Your task to perform on an android device: open app "Move to iOS" Image 0: 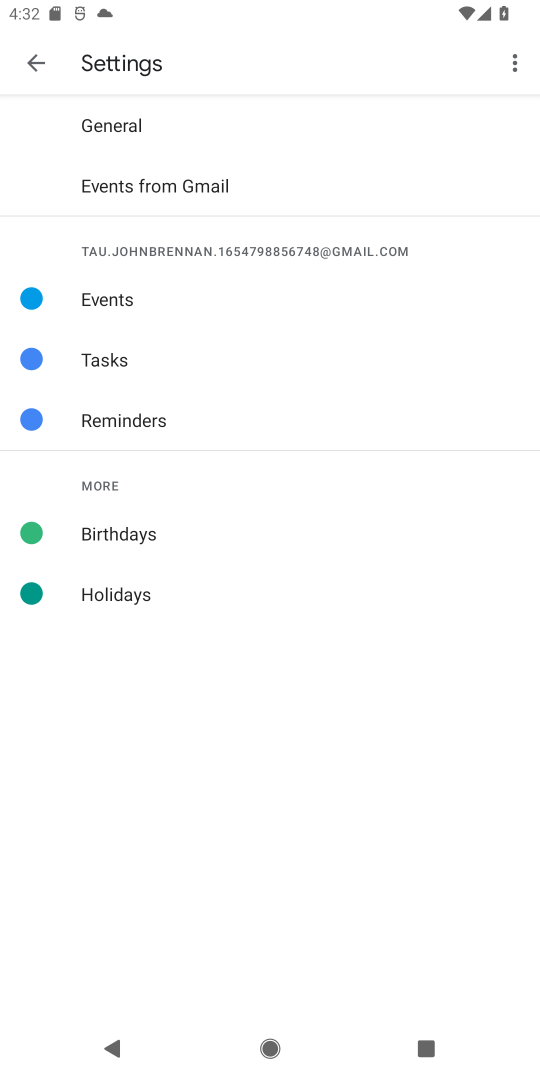
Step 0: press home button
Your task to perform on an android device: open app "Move to iOS" Image 1: 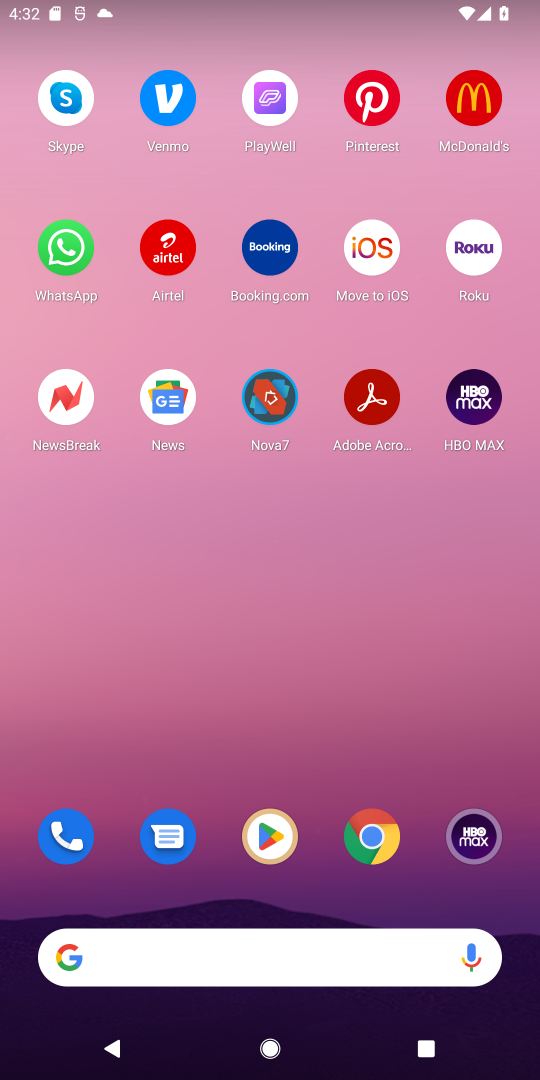
Step 1: click (272, 834)
Your task to perform on an android device: open app "Move to iOS" Image 2: 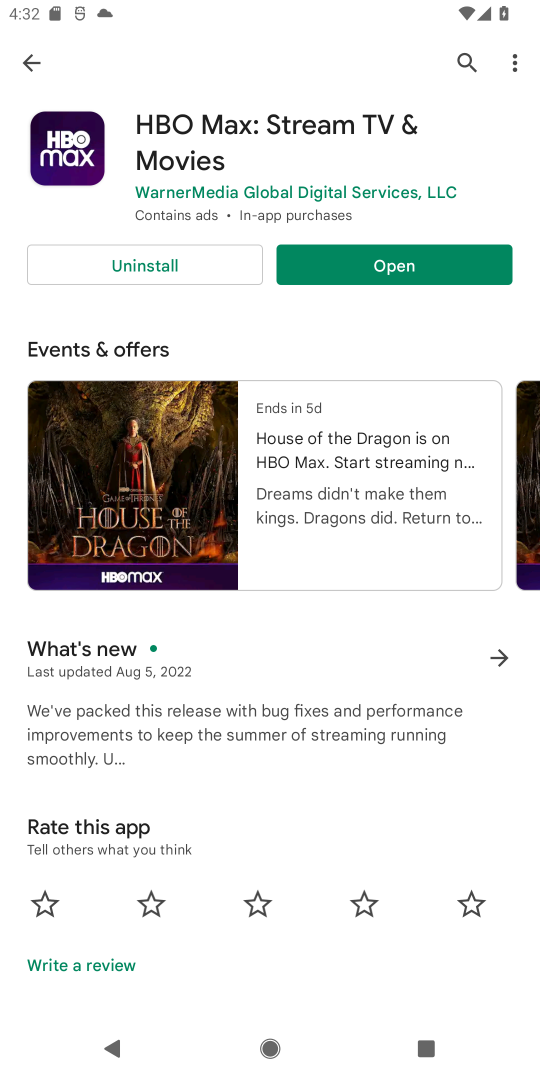
Step 2: click (467, 62)
Your task to perform on an android device: open app "Move to iOS" Image 3: 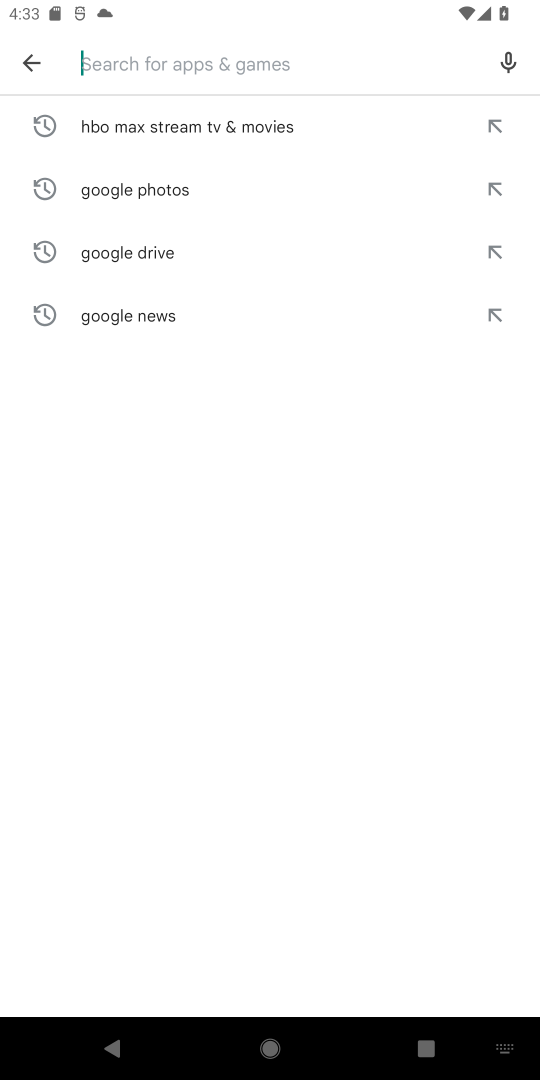
Step 3: type """
Your task to perform on an android device: open app "Move to iOS" Image 4: 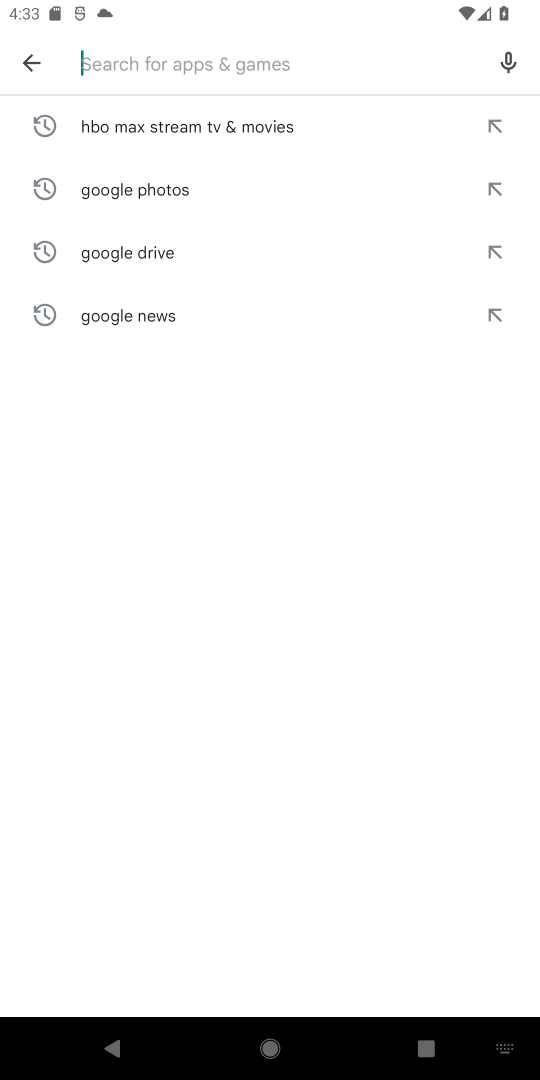
Step 4: type "Move to iOS"
Your task to perform on an android device: open app "Move to iOS" Image 5: 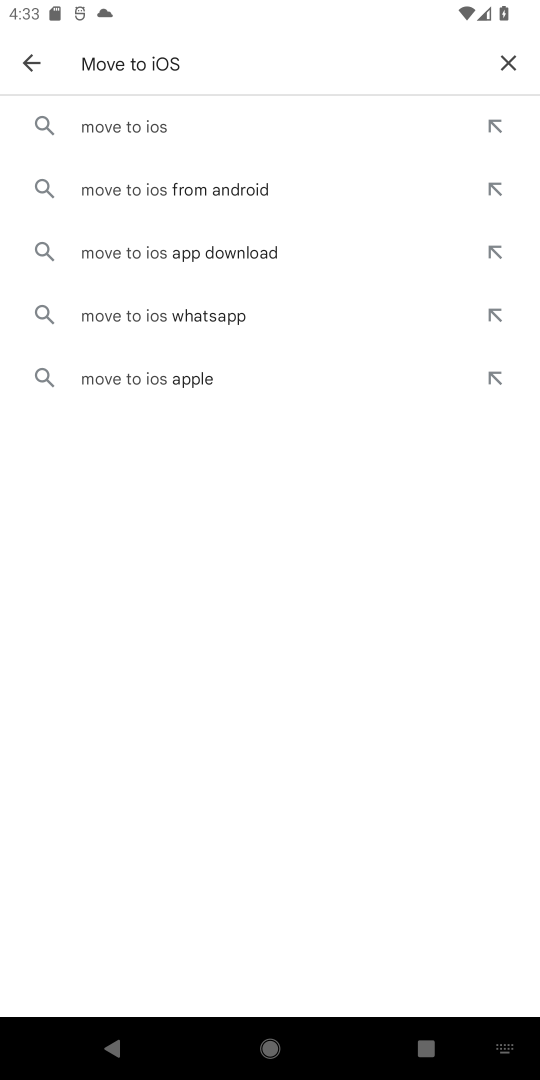
Step 5: click (117, 126)
Your task to perform on an android device: open app "Move to iOS" Image 6: 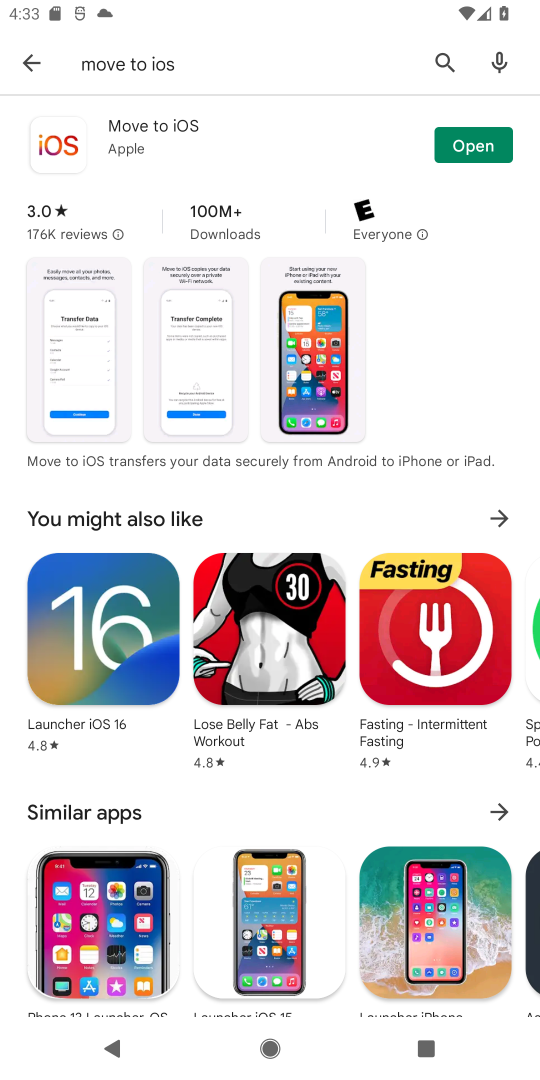
Step 6: click (481, 147)
Your task to perform on an android device: open app "Move to iOS" Image 7: 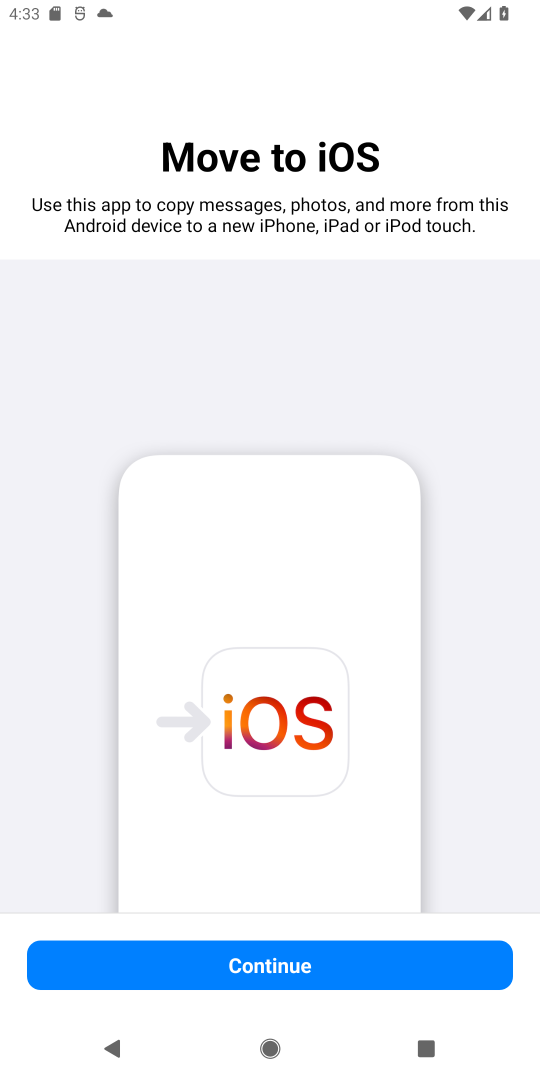
Step 7: task complete